Your task to perform on an android device: Find coffee shops on Maps Image 0: 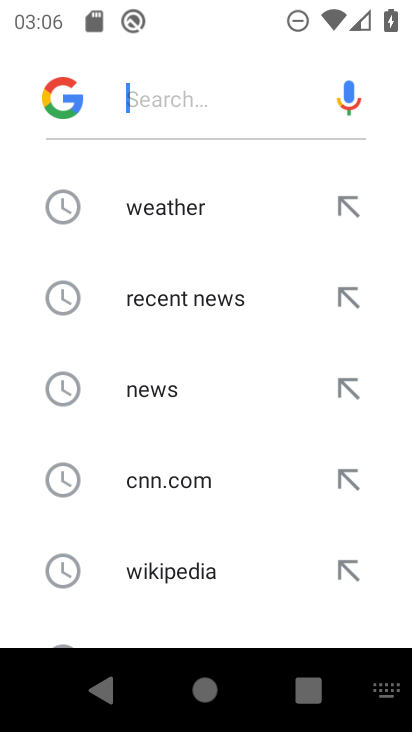
Step 0: press home button
Your task to perform on an android device: Find coffee shops on Maps Image 1: 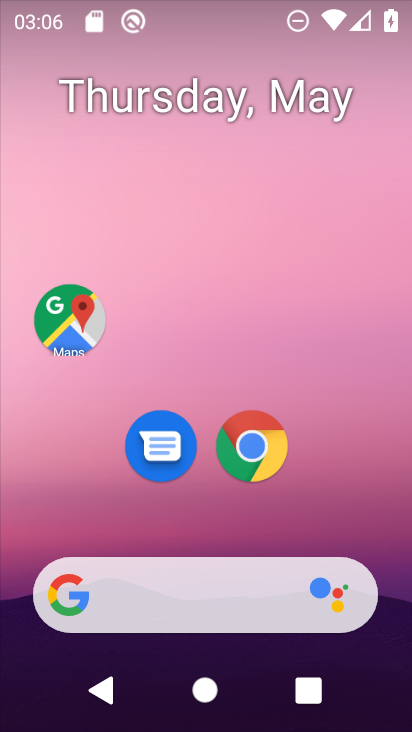
Step 1: click (70, 323)
Your task to perform on an android device: Find coffee shops on Maps Image 2: 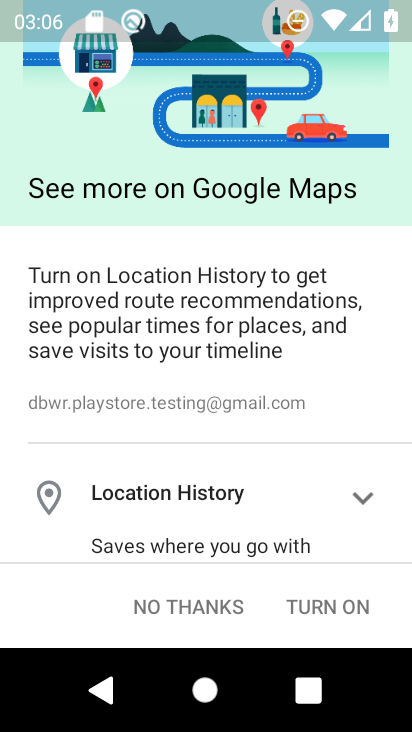
Step 2: click (173, 606)
Your task to perform on an android device: Find coffee shops on Maps Image 3: 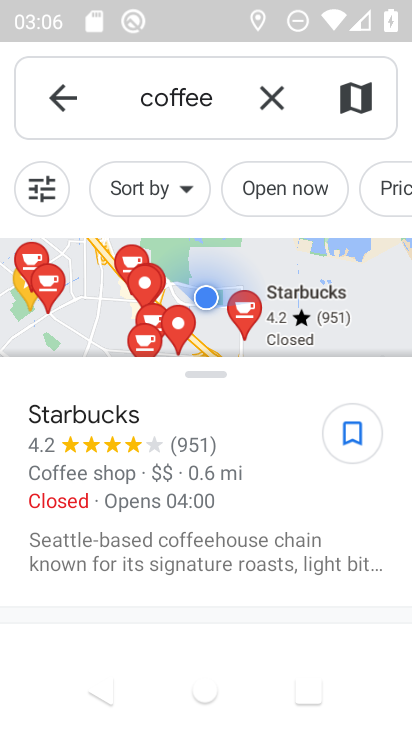
Step 3: click (277, 95)
Your task to perform on an android device: Find coffee shops on Maps Image 4: 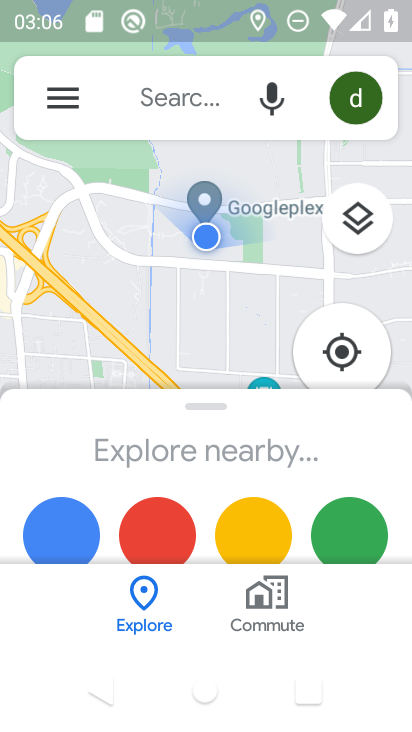
Step 4: click (143, 95)
Your task to perform on an android device: Find coffee shops on Maps Image 5: 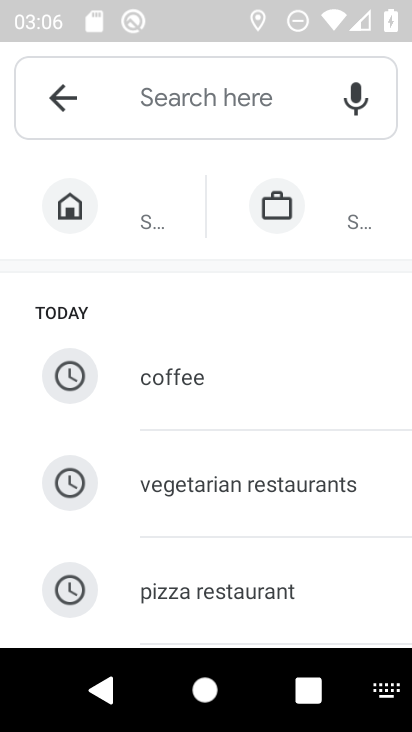
Step 5: type "coffee shops"
Your task to perform on an android device: Find coffee shops on Maps Image 6: 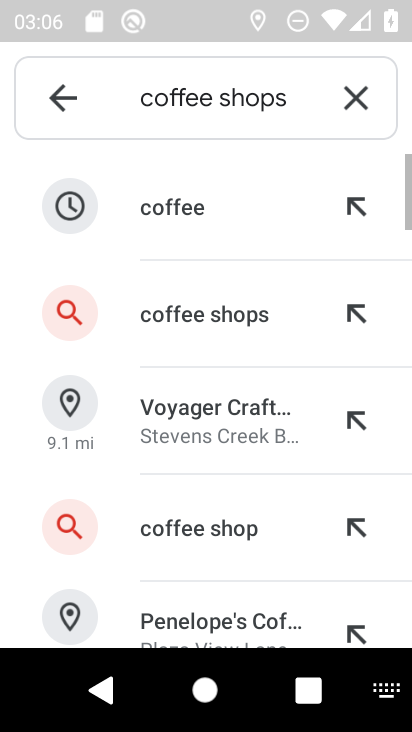
Step 6: click (160, 315)
Your task to perform on an android device: Find coffee shops on Maps Image 7: 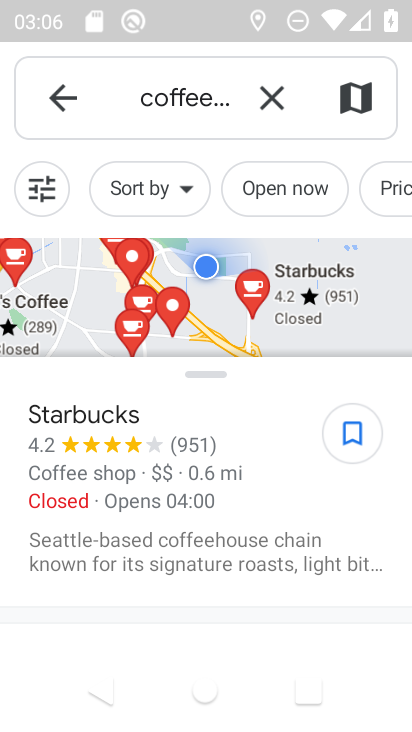
Step 7: task complete